Your task to perform on an android device: toggle notifications settings in the gmail app Image 0: 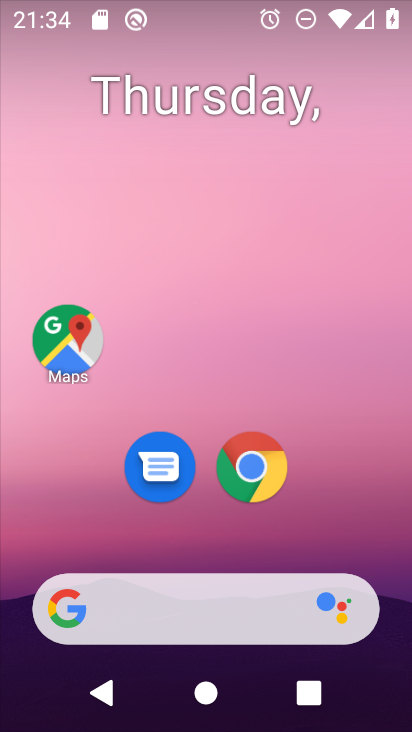
Step 0: drag from (325, 510) to (292, 223)
Your task to perform on an android device: toggle notifications settings in the gmail app Image 1: 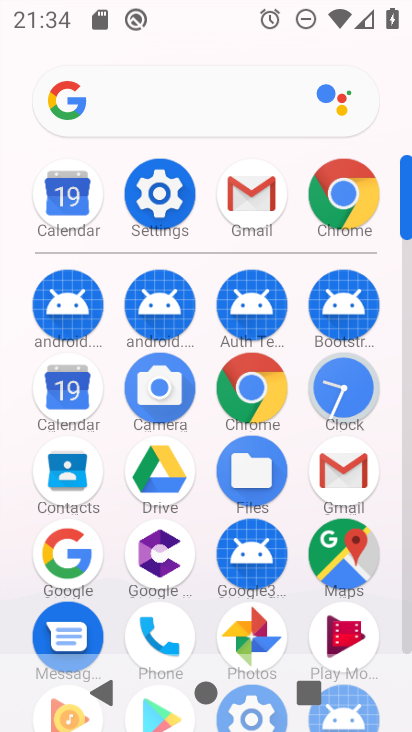
Step 1: click (349, 473)
Your task to perform on an android device: toggle notifications settings in the gmail app Image 2: 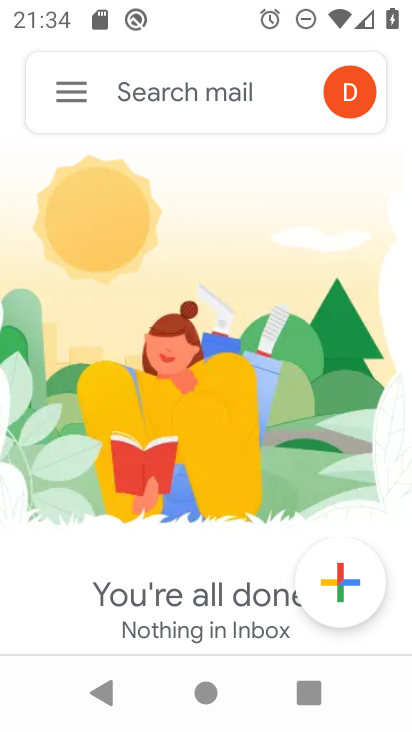
Step 2: press home button
Your task to perform on an android device: toggle notifications settings in the gmail app Image 3: 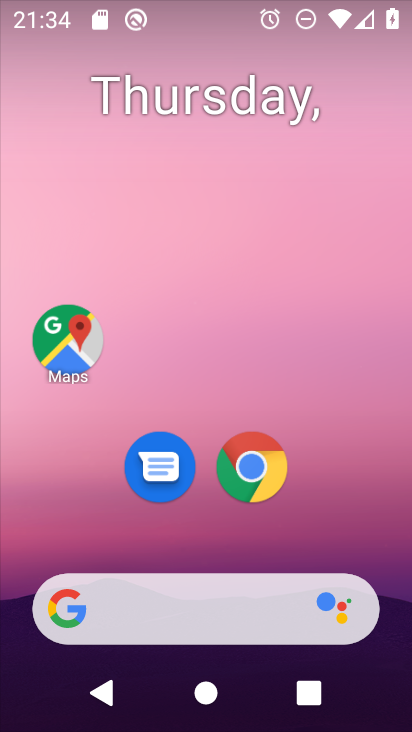
Step 3: click (388, 513)
Your task to perform on an android device: toggle notifications settings in the gmail app Image 4: 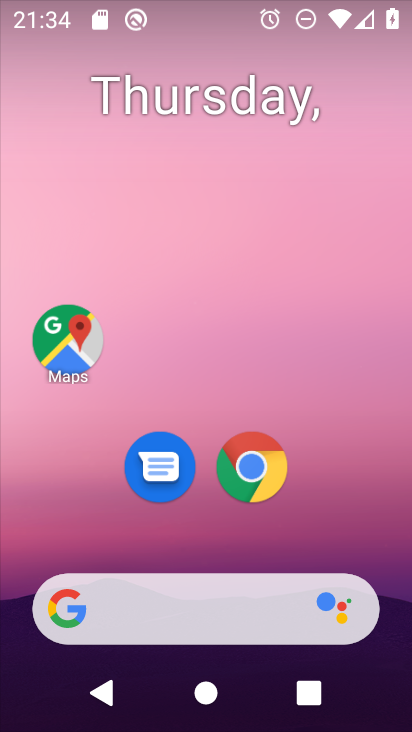
Step 4: drag from (224, 629) to (258, 43)
Your task to perform on an android device: toggle notifications settings in the gmail app Image 5: 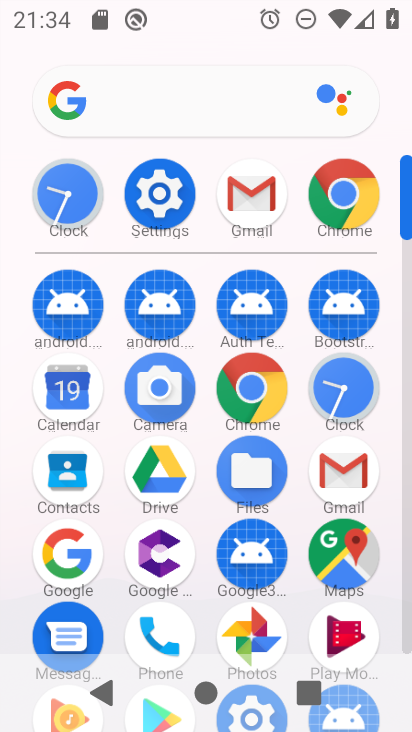
Step 5: click (347, 452)
Your task to perform on an android device: toggle notifications settings in the gmail app Image 6: 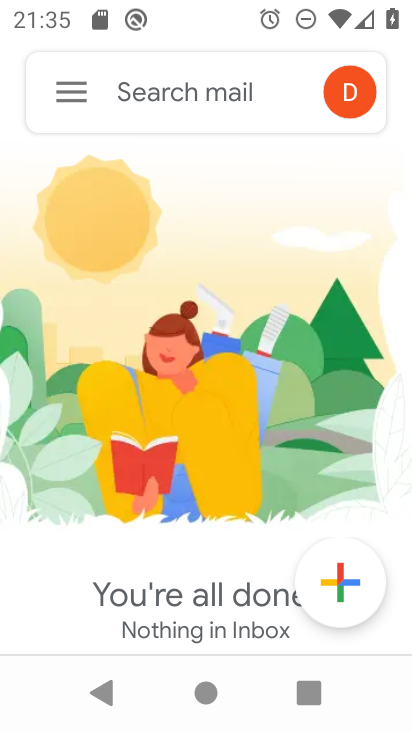
Step 6: click (48, 72)
Your task to perform on an android device: toggle notifications settings in the gmail app Image 7: 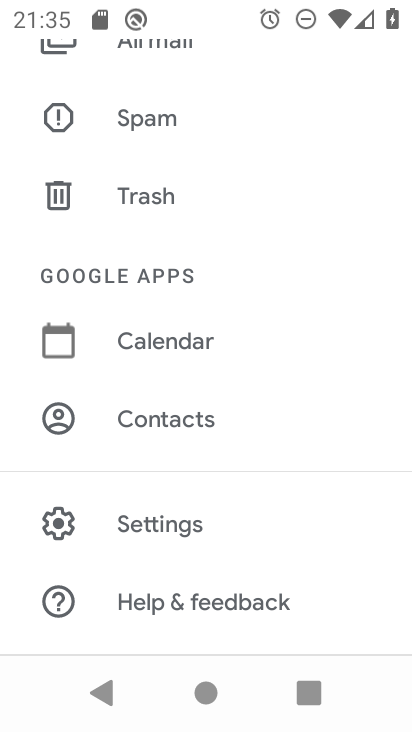
Step 7: drag from (226, 223) to (309, 92)
Your task to perform on an android device: toggle notifications settings in the gmail app Image 8: 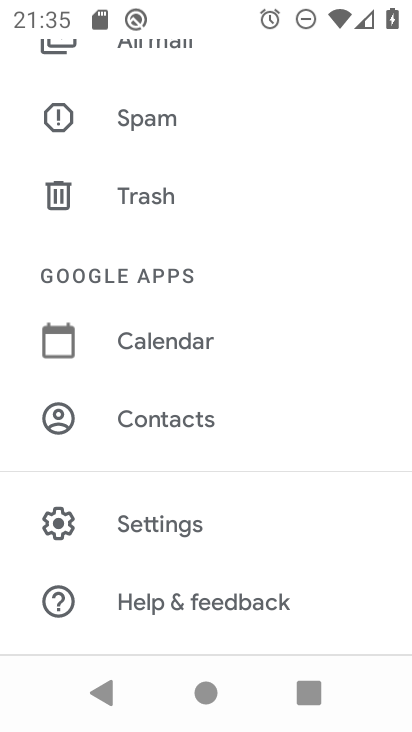
Step 8: click (188, 521)
Your task to perform on an android device: toggle notifications settings in the gmail app Image 9: 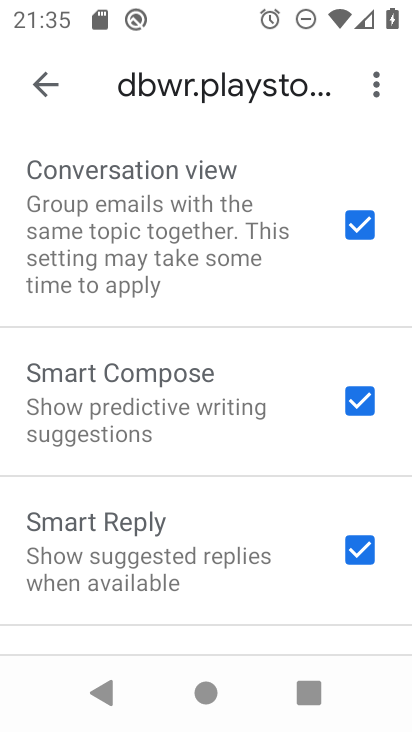
Step 9: click (185, 583)
Your task to perform on an android device: toggle notifications settings in the gmail app Image 10: 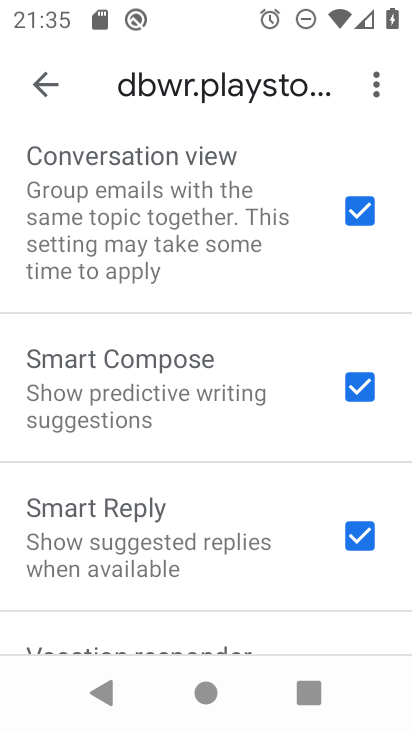
Step 10: drag from (194, 210) to (187, 267)
Your task to perform on an android device: toggle notifications settings in the gmail app Image 11: 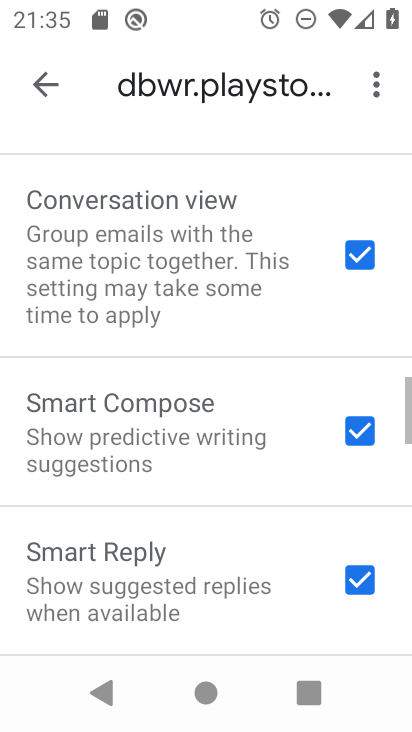
Step 11: drag from (180, 290) to (156, 451)
Your task to perform on an android device: toggle notifications settings in the gmail app Image 12: 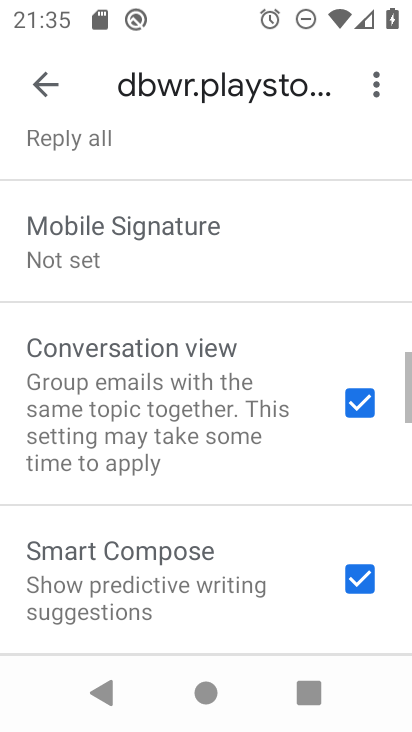
Step 12: drag from (188, 184) to (200, 551)
Your task to perform on an android device: toggle notifications settings in the gmail app Image 13: 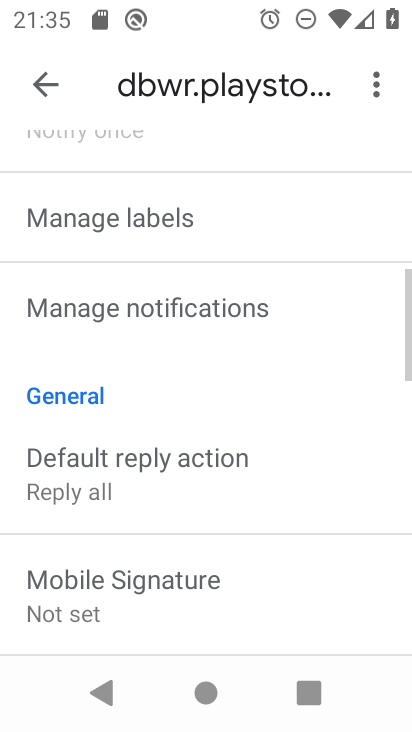
Step 13: drag from (154, 186) to (154, 233)
Your task to perform on an android device: toggle notifications settings in the gmail app Image 14: 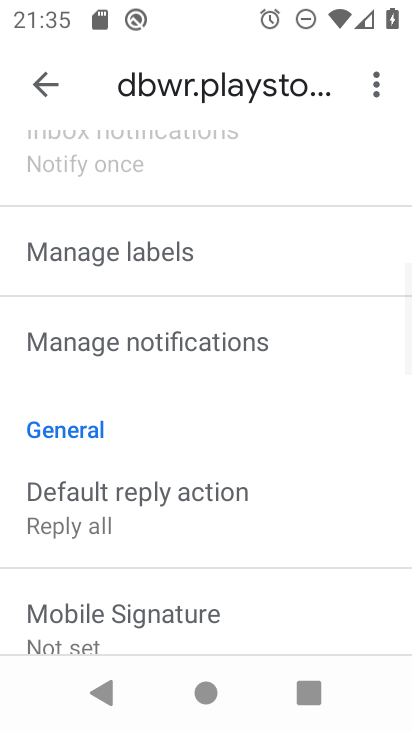
Step 14: click (155, 234)
Your task to perform on an android device: toggle notifications settings in the gmail app Image 15: 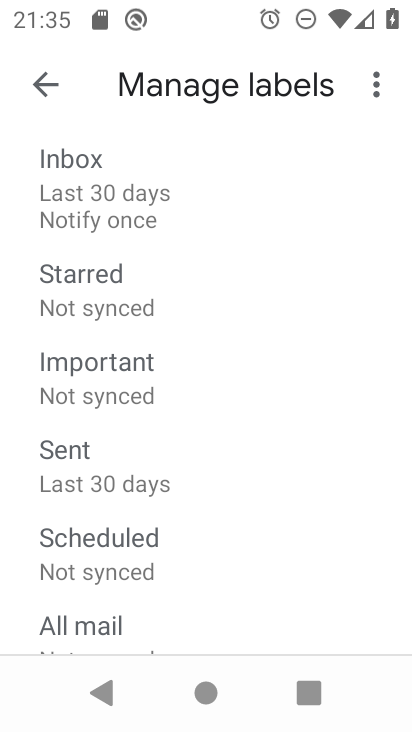
Step 15: click (34, 90)
Your task to perform on an android device: toggle notifications settings in the gmail app Image 16: 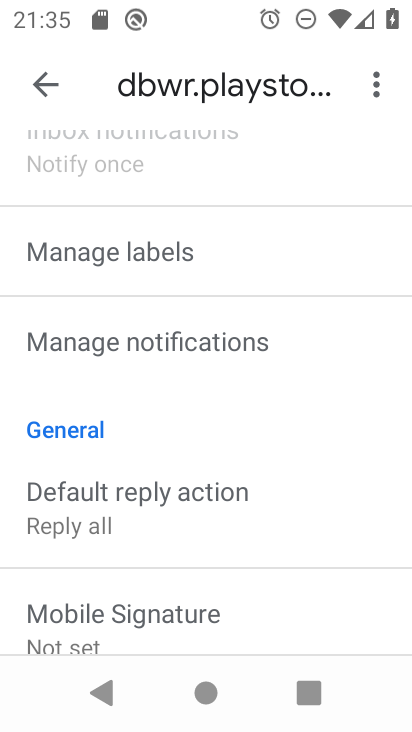
Step 16: click (243, 205)
Your task to perform on an android device: toggle notifications settings in the gmail app Image 17: 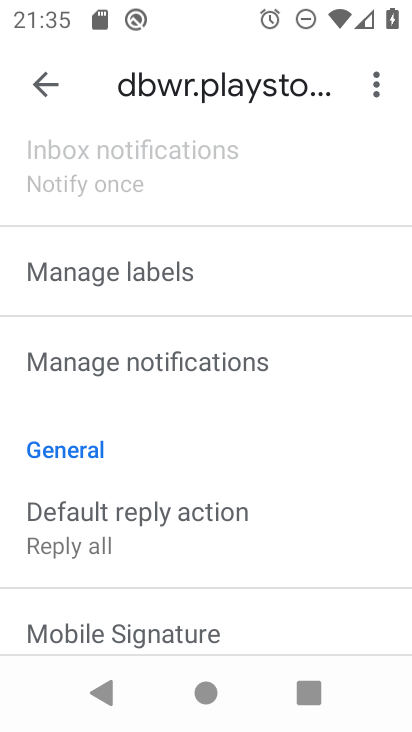
Step 17: drag from (212, 118) to (212, 623)
Your task to perform on an android device: toggle notifications settings in the gmail app Image 18: 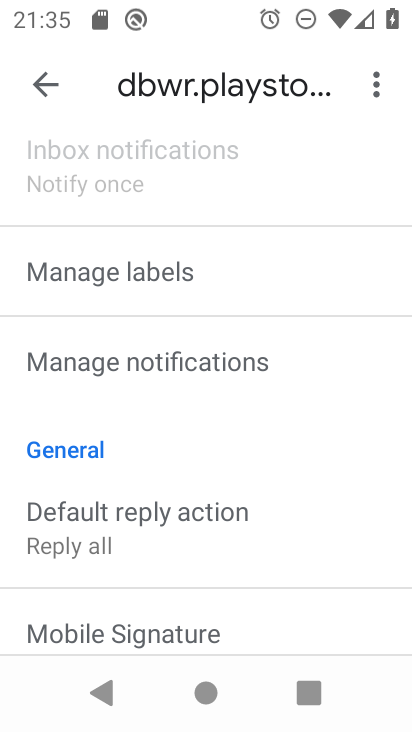
Step 18: drag from (150, 194) to (180, 406)
Your task to perform on an android device: toggle notifications settings in the gmail app Image 19: 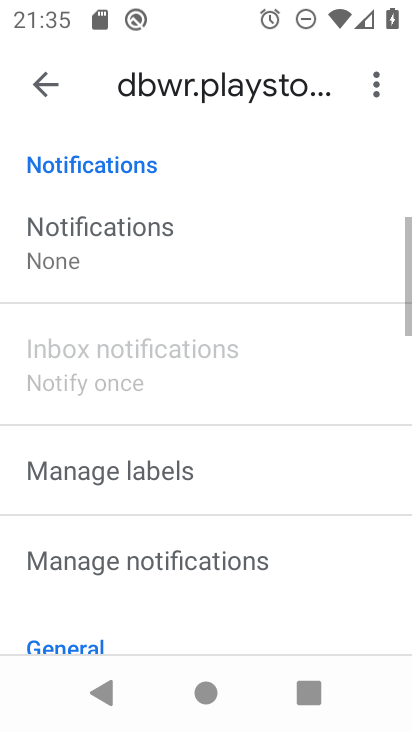
Step 19: drag from (132, 194) to (162, 587)
Your task to perform on an android device: toggle notifications settings in the gmail app Image 20: 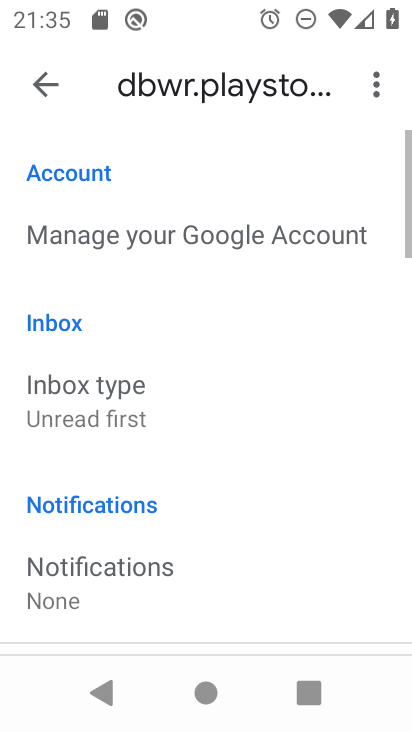
Step 20: drag from (143, 311) to (166, 459)
Your task to perform on an android device: toggle notifications settings in the gmail app Image 21: 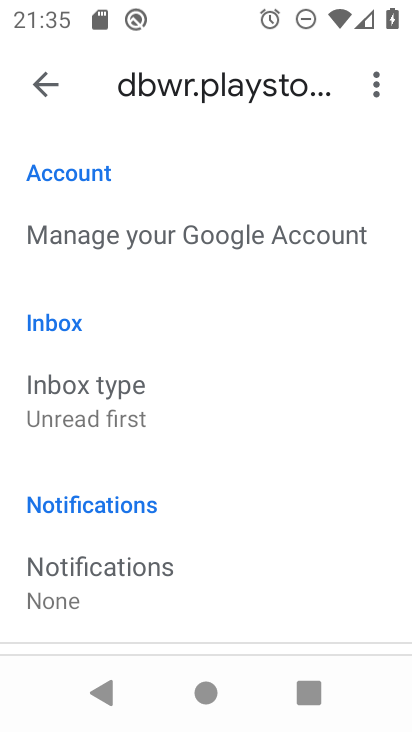
Step 21: click (124, 599)
Your task to perform on an android device: toggle notifications settings in the gmail app Image 22: 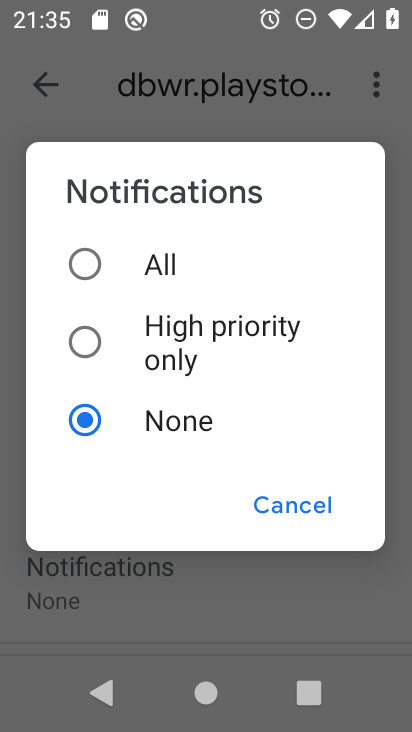
Step 22: click (177, 261)
Your task to perform on an android device: toggle notifications settings in the gmail app Image 23: 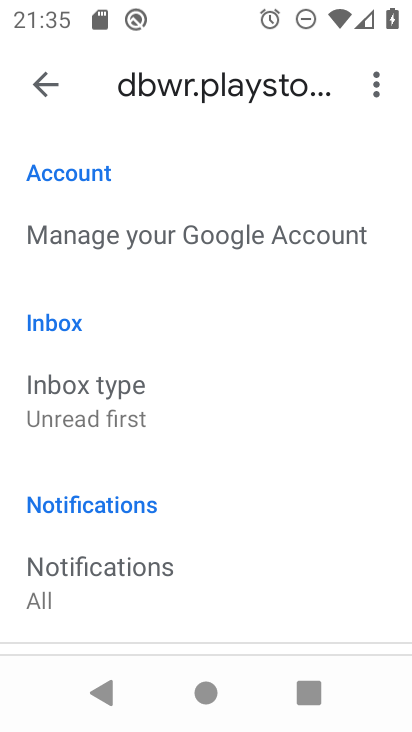
Step 23: task complete